Your task to perform on an android device: Search for the new iphone 13 pro on Etsy. Image 0: 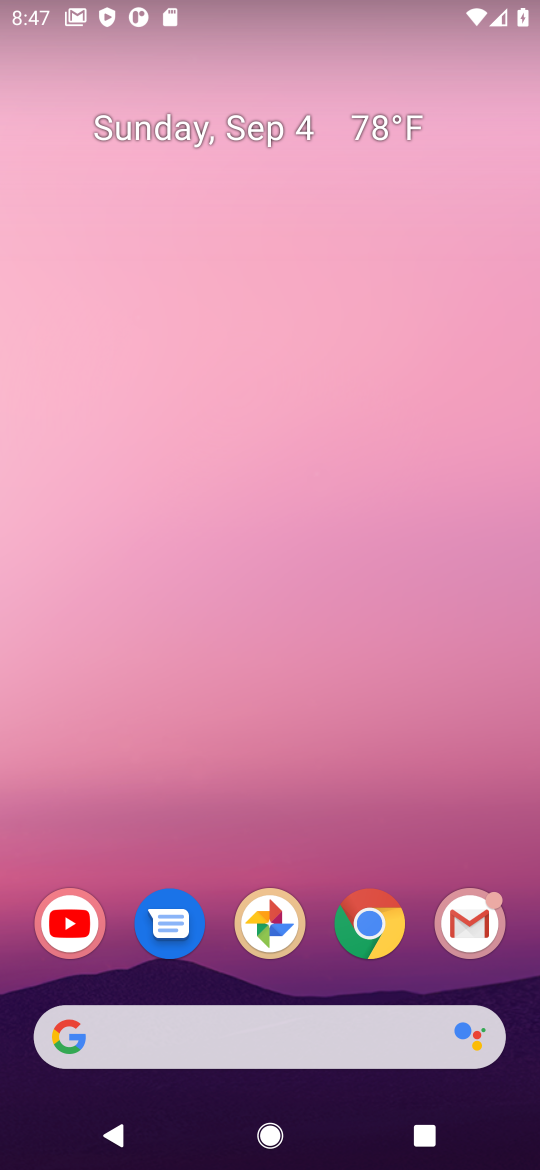
Step 0: click (354, 930)
Your task to perform on an android device: Search for the new iphone 13 pro on Etsy. Image 1: 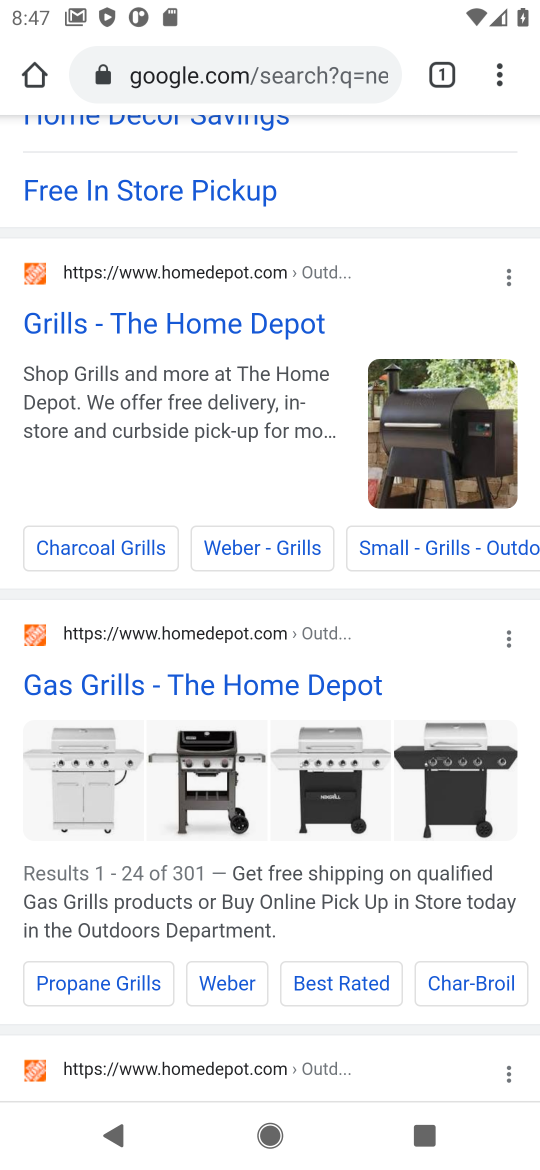
Step 1: click (207, 74)
Your task to perform on an android device: Search for the new iphone 13 pro on Etsy. Image 2: 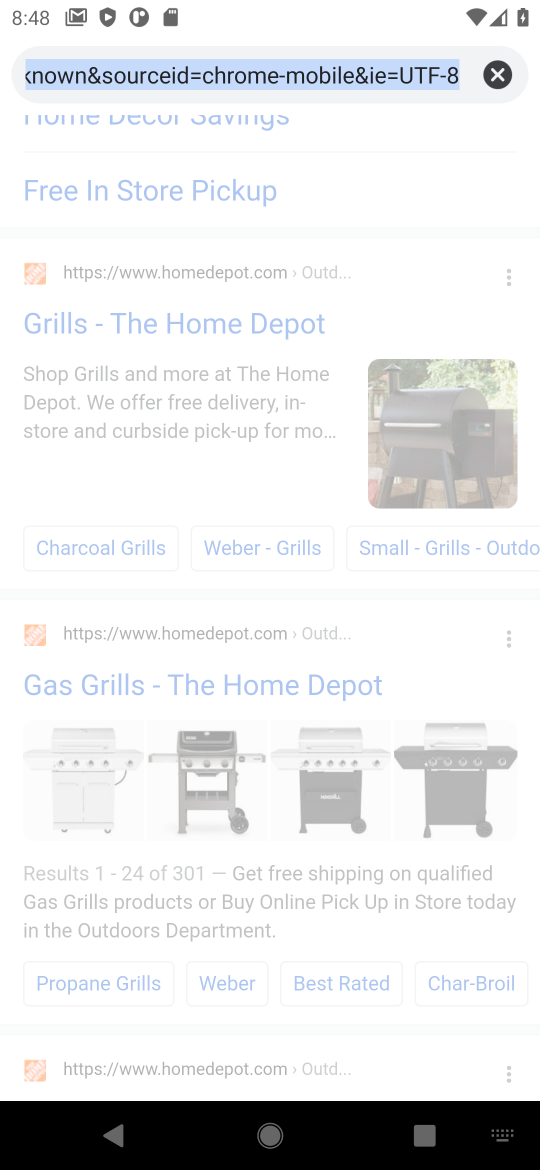
Step 2: click (503, 75)
Your task to perform on an android device: Search for the new iphone 13 pro on Etsy. Image 3: 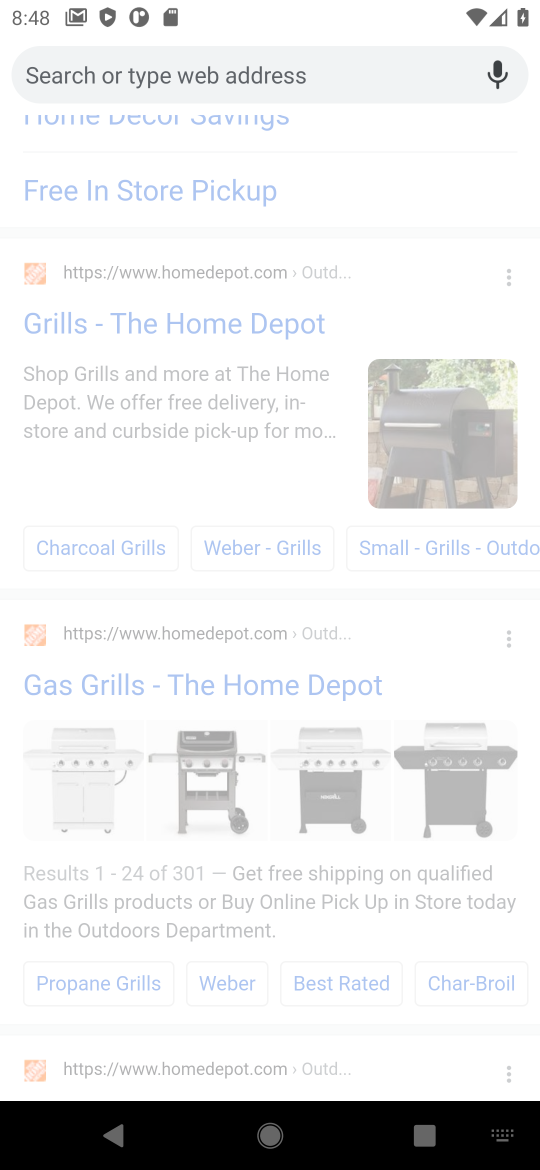
Step 3: type " new iphone 13 pro on Etsy."
Your task to perform on an android device: Search for the new iphone 13 pro on Etsy. Image 4: 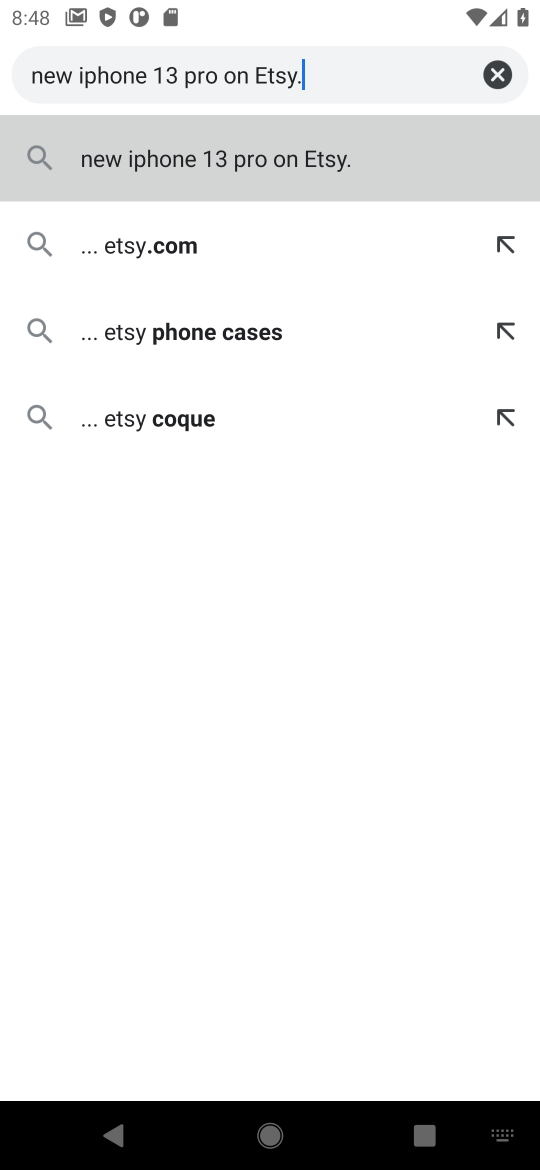
Step 4: click (227, 169)
Your task to perform on an android device: Search for the new iphone 13 pro on Etsy. Image 5: 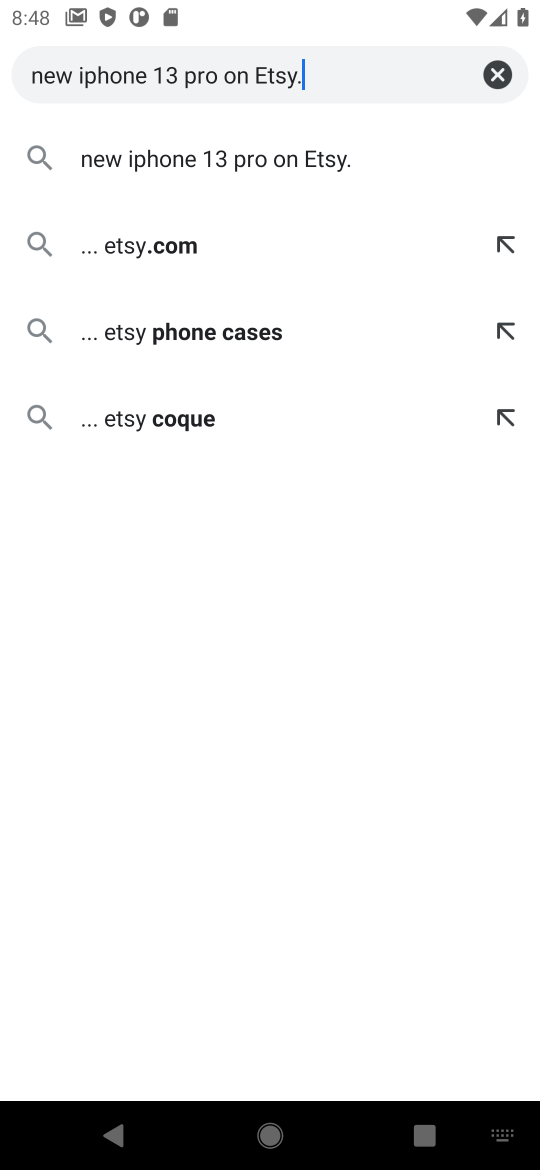
Step 5: click (171, 161)
Your task to perform on an android device: Search for the new iphone 13 pro on Etsy. Image 6: 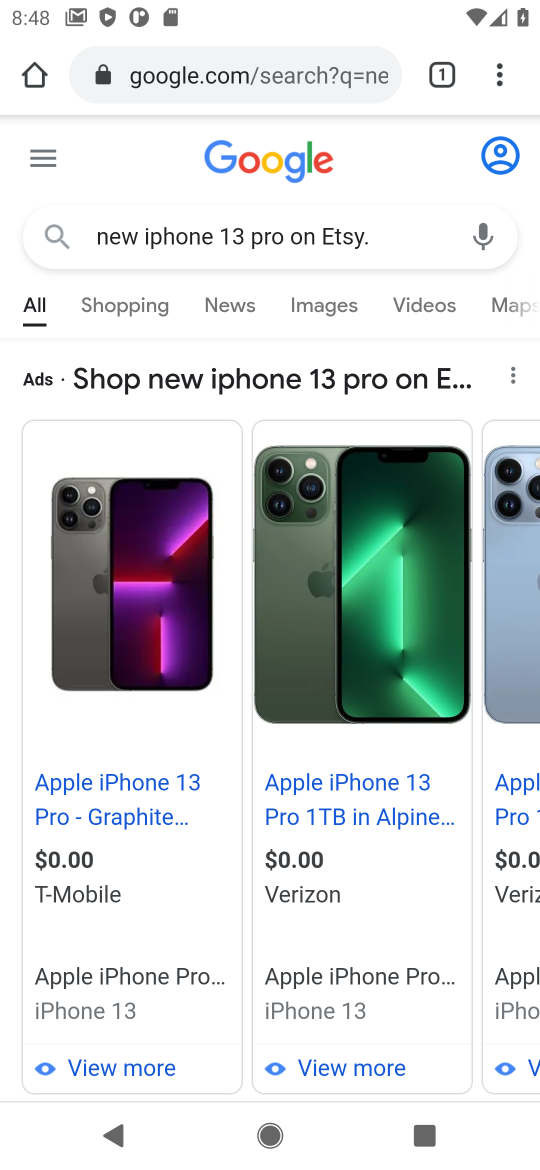
Step 6: task complete